Your task to perform on an android device: set the timer Image 0: 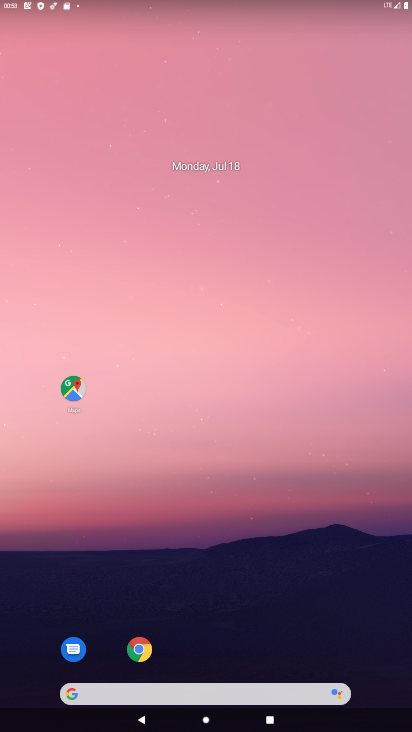
Step 0: drag from (190, 633) to (205, 75)
Your task to perform on an android device: set the timer Image 1: 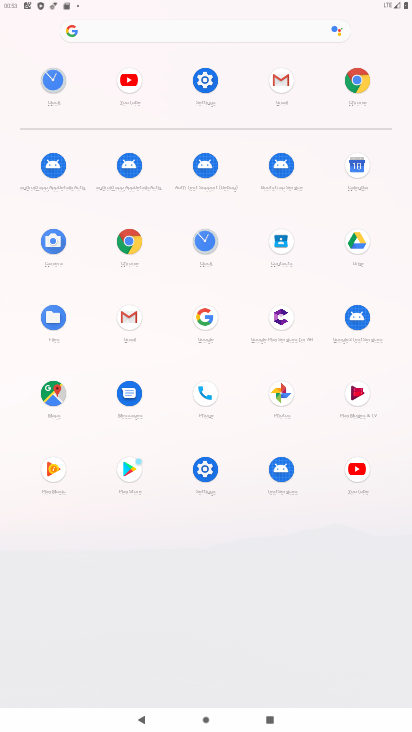
Step 1: click (41, 88)
Your task to perform on an android device: set the timer Image 2: 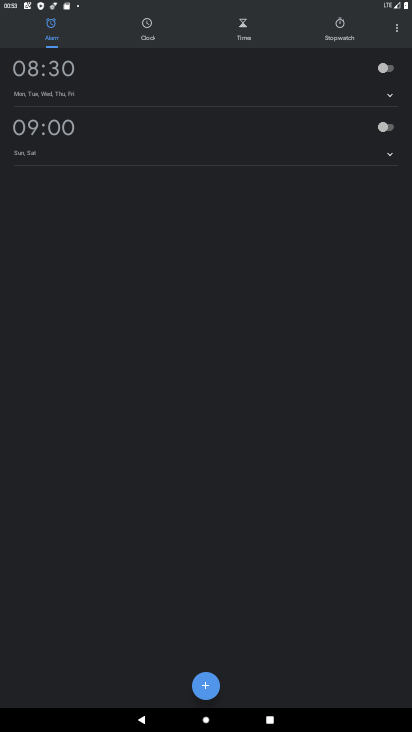
Step 2: click (247, 36)
Your task to perform on an android device: set the timer Image 3: 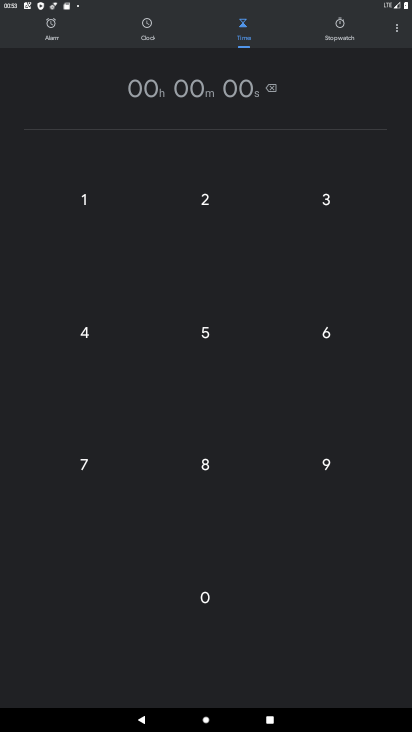
Step 3: click (204, 197)
Your task to perform on an android device: set the timer Image 4: 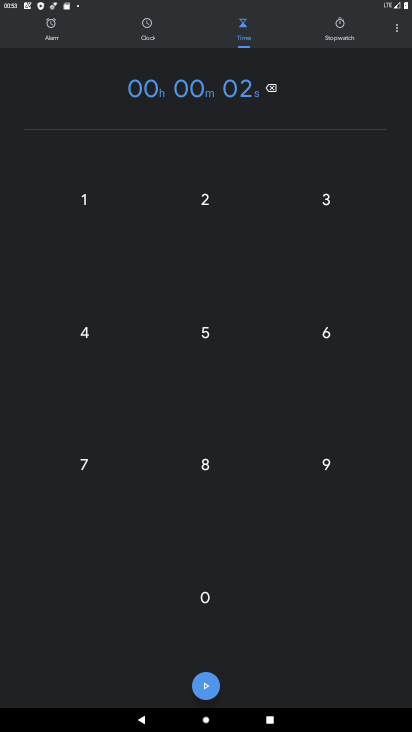
Step 4: click (197, 593)
Your task to perform on an android device: set the timer Image 5: 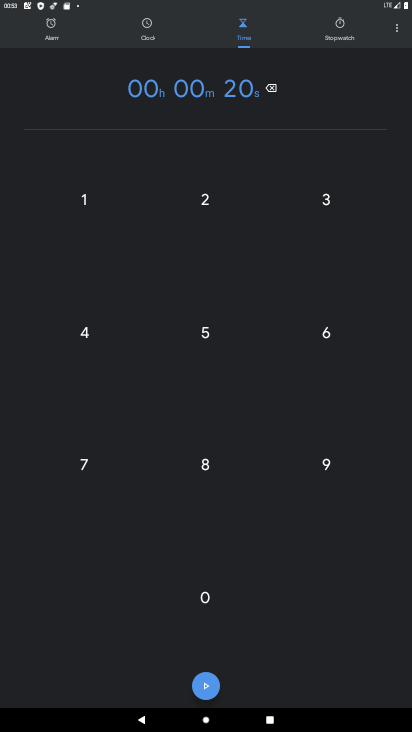
Step 5: click (201, 593)
Your task to perform on an android device: set the timer Image 6: 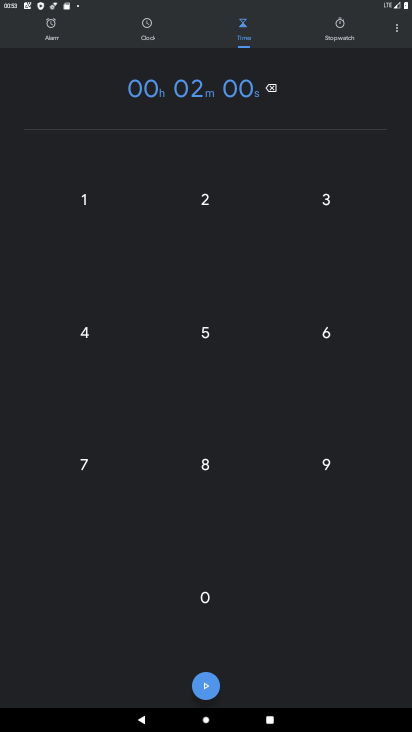
Step 6: click (201, 593)
Your task to perform on an android device: set the timer Image 7: 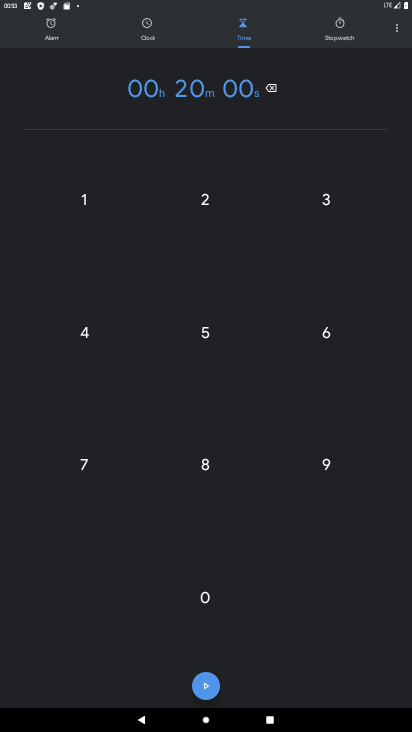
Step 7: click (204, 685)
Your task to perform on an android device: set the timer Image 8: 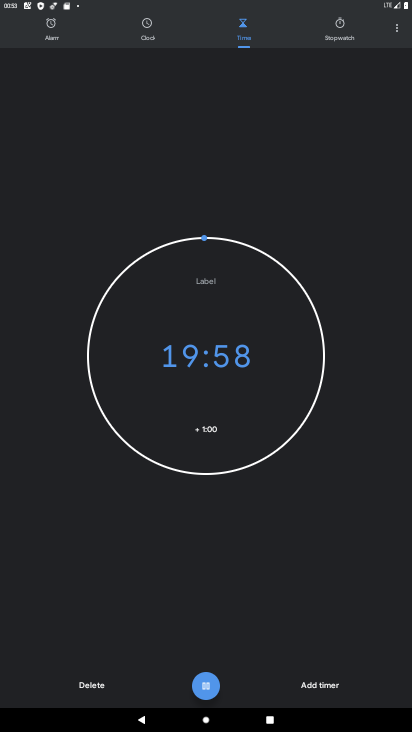
Step 8: click (323, 687)
Your task to perform on an android device: set the timer Image 9: 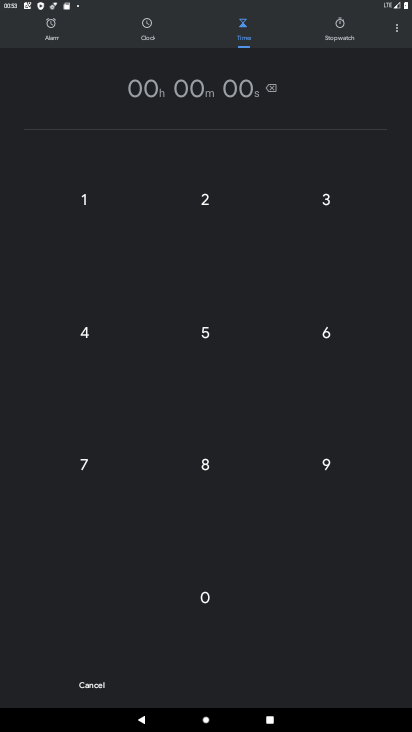
Step 9: task complete